Your task to perform on an android device: Check the weather Image 0: 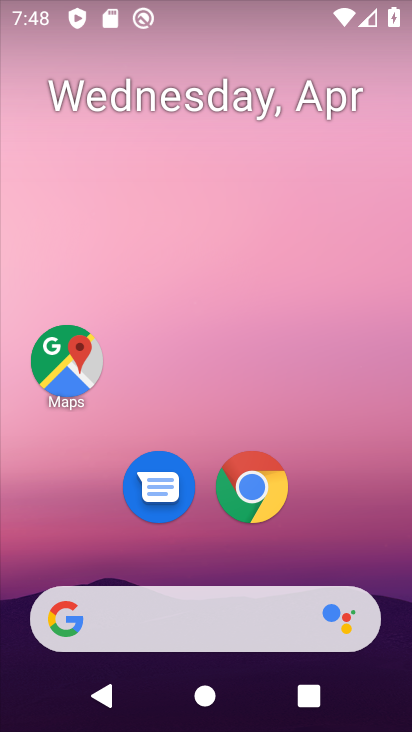
Step 0: drag from (352, 539) to (350, 157)
Your task to perform on an android device: Check the weather Image 1: 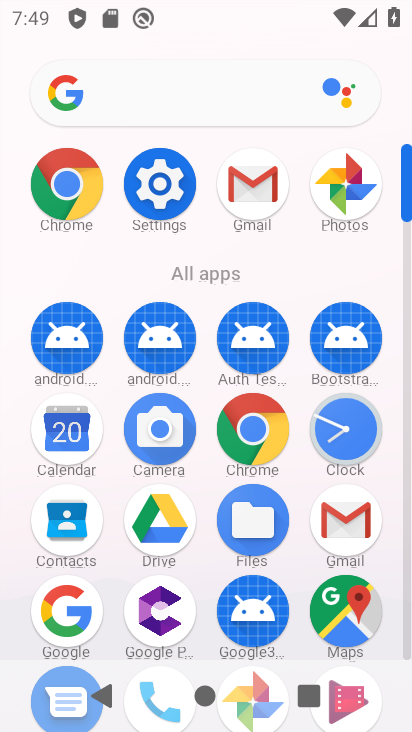
Step 1: click (259, 441)
Your task to perform on an android device: Check the weather Image 2: 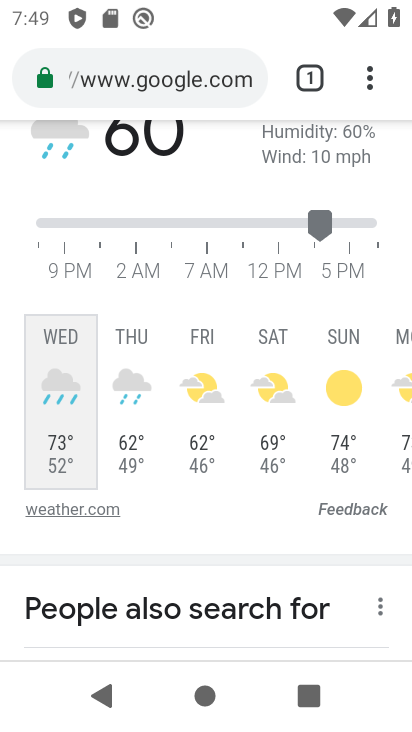
Step 2: task complete